Your task to perform on an android device: turn smart compose on in the gmail app Image 0: 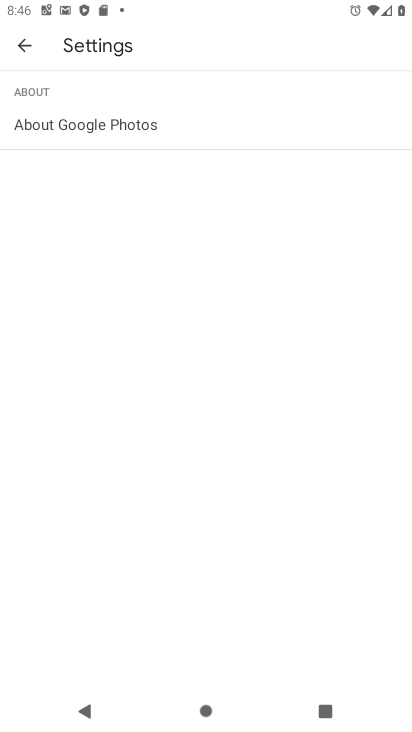
Step 0: click (22, 45)
Your task to perform on an android device: turn smart compose on in the gmail app Image 1: 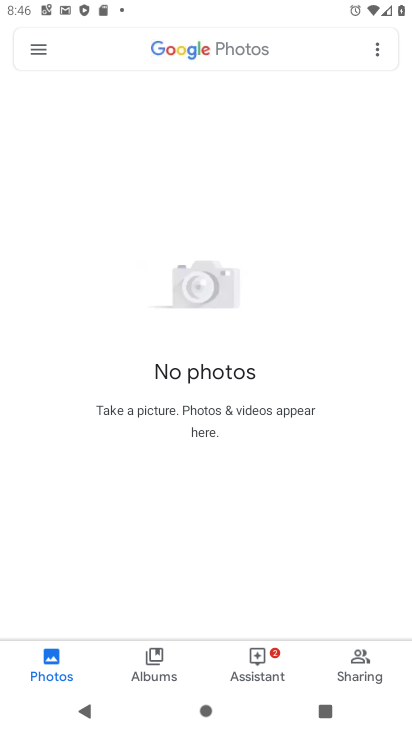
Step 1: press home button
Your task to perform on an android device: turn smart compose on in the gmail app Image 2: 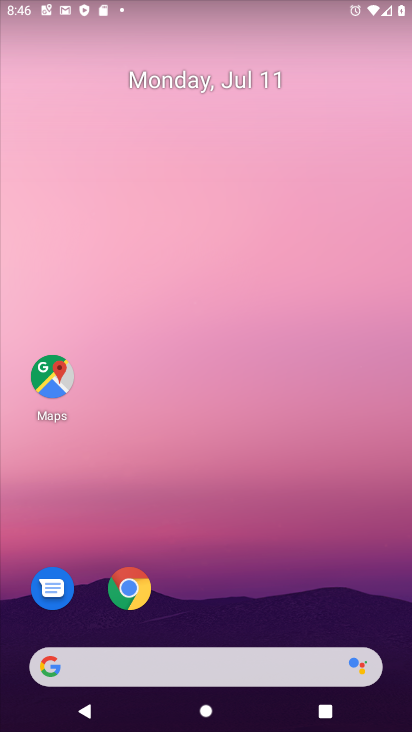
Step 2: drag from (144, 673) to (276, 163)
Your task to perform on an android device: turn smart compose on in the gmail app Image 3: 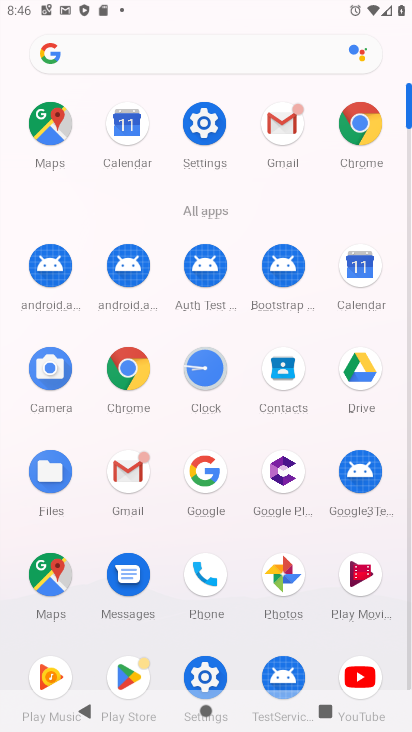
Step 3: click (287, 125)
Your task to perform on an android device: turn smart compose on in the gmail app Image 4: 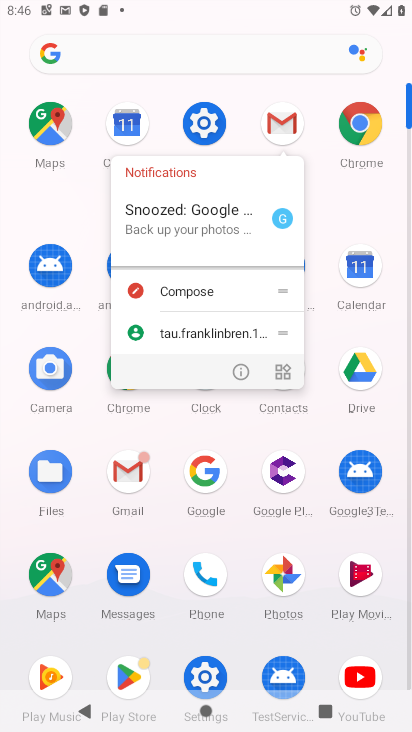
Step 4: click (286, 125)
Your task to perform on an android device: turn smart compose on in the gmail app Image 5: 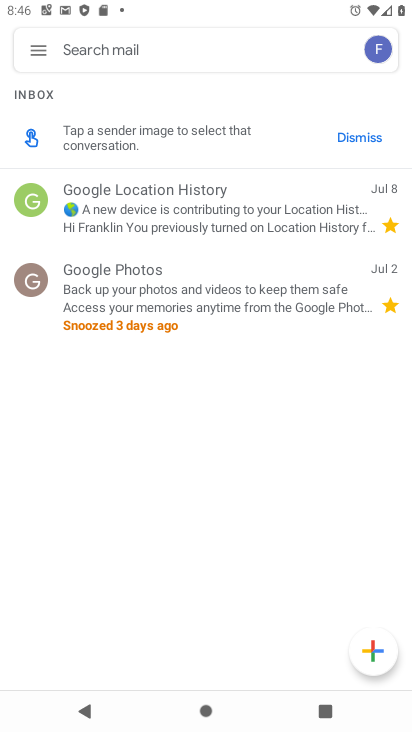
Step 5: click (40, 52)
Your task to perform on an android device: turn smart compose on in the gmail app Image 6: 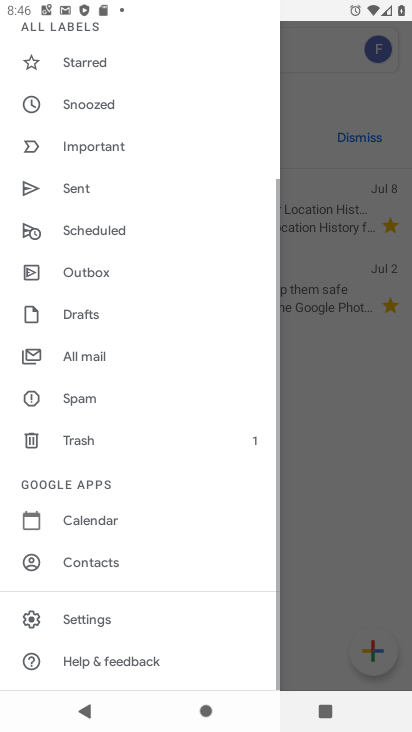
Step 6: click (97, 618)
Your task to perform on an android device: turn smart compose on in the gmail app Image 7: 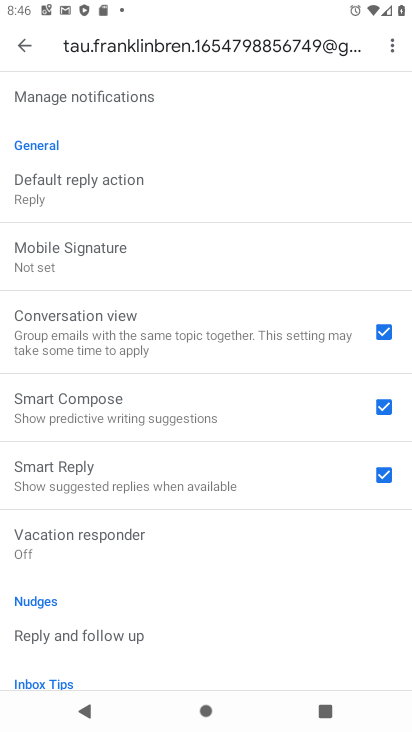
Step 7: task complete